Your task to perform on an android device: turn on the 12-hour format for clock Image 0: 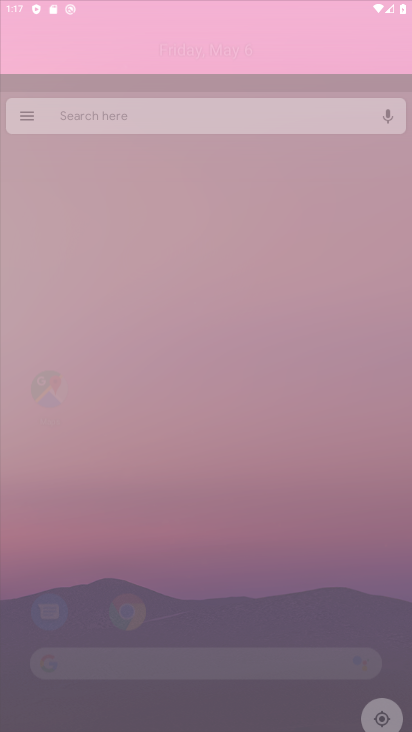
Step 0: click (129, 641)
Your task to perform on an android device: turn on the 12-hour format for clock Image 1: 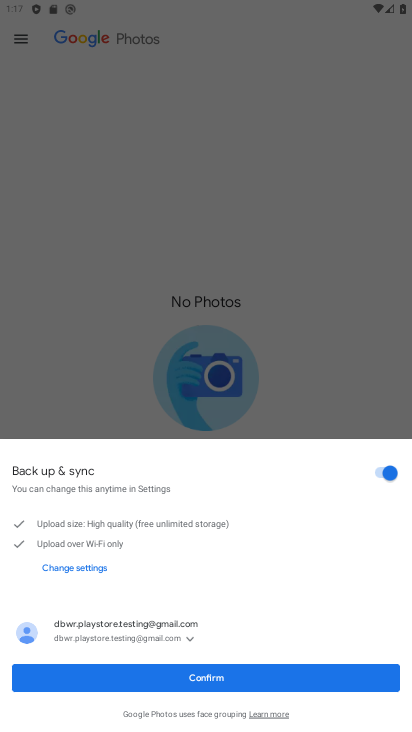
Step 1: click (202, 685)
Your task to perform on an android device: turn on the 12-hour format for clock Image 2: 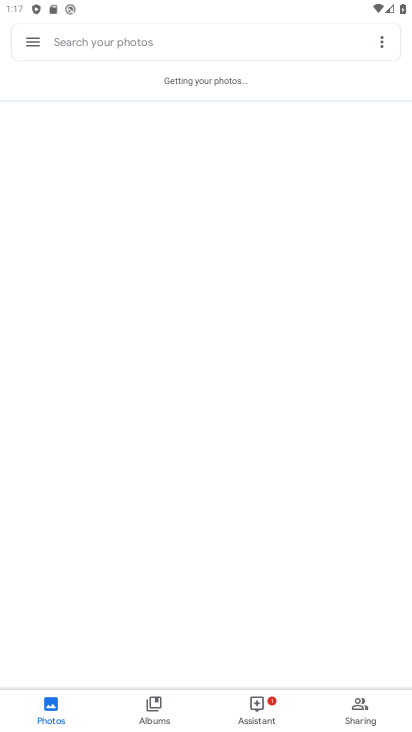
Step 2: press back button
Your task to perform on an android device: turn on the 12-hour format for clock Image 3: 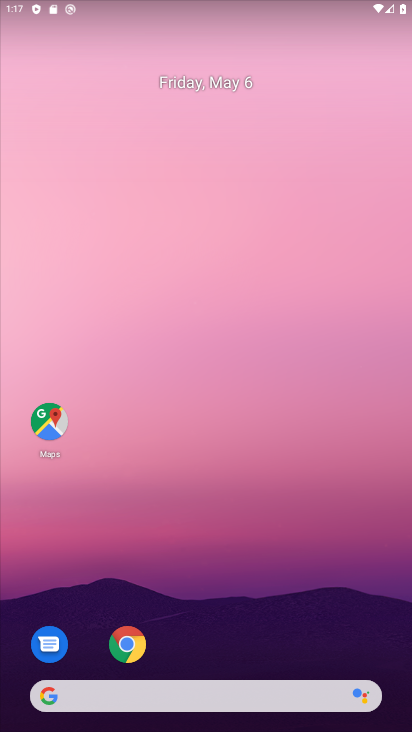
Step 3: drag from (216, 633) to (302, 107)
Your task to perform on an android device: turn on the 12-hour format for clock Image 4: 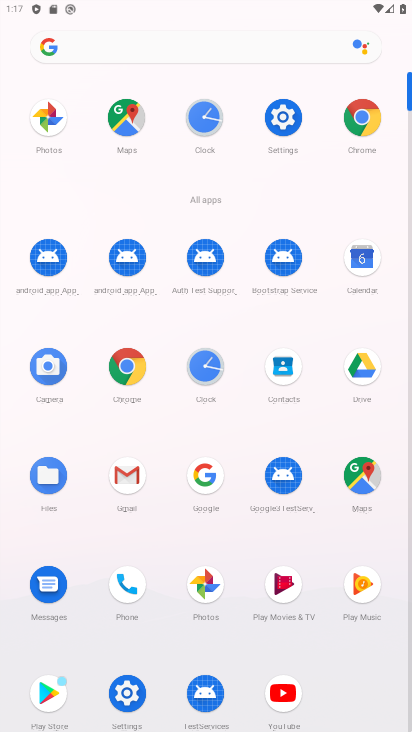
Step 4: click (204, 362)
Your task to perform on an android device: turn on the 12-hour format for clock Image 5: 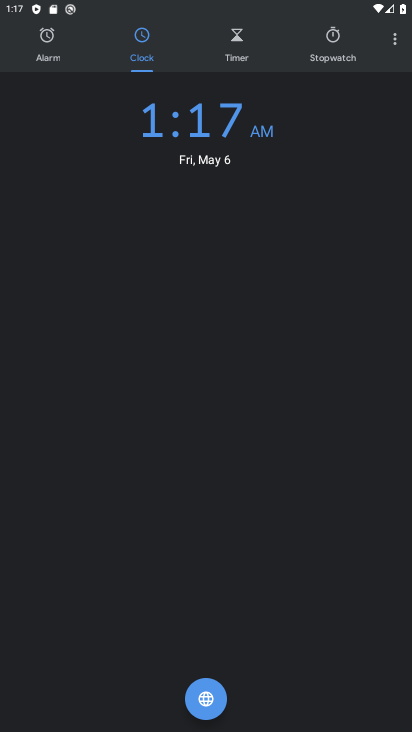
Step 5: click (393, 40)
Your task to perform on an android device: turn on the 12-hour format for clock Image 6: 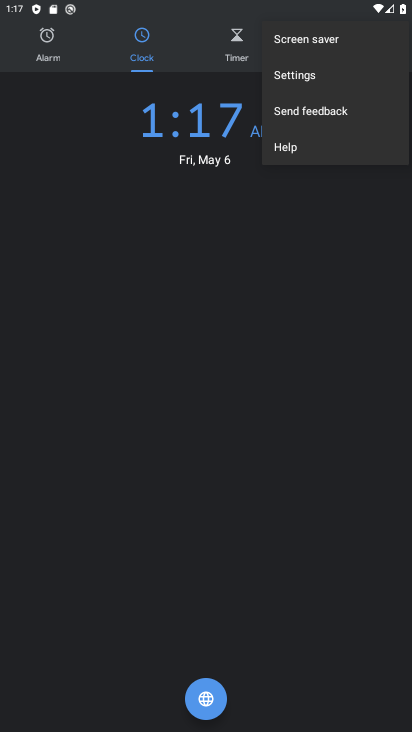
Step 6: click (315, 77)
Your task to perform on an android device: turn on the 12-hour format for clock Image 7: 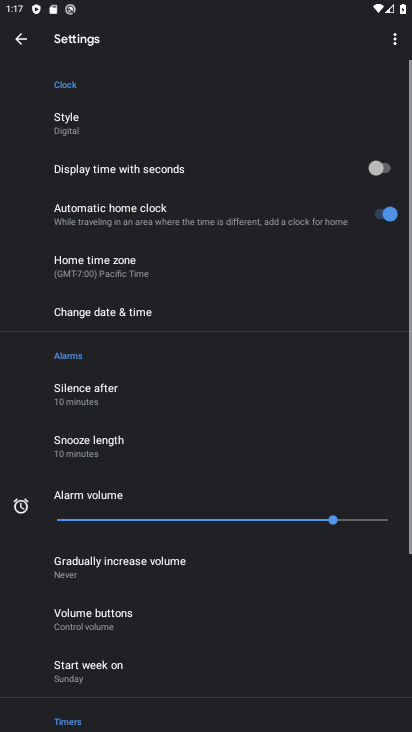
Step 7: drag from (135, 663) to (240, 73)
Your task to perform on an android device: turn on the 12-hour format for clock Image 8: 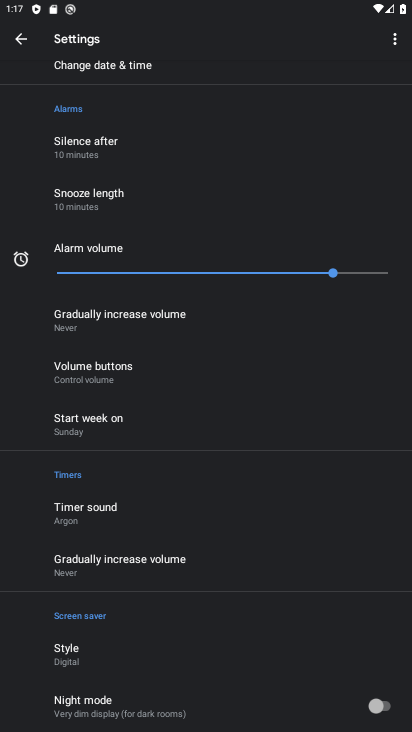
Step 8: click (102, 67)
Your task to perform on an android device: turn on the 12-hour format for clock Image 9: 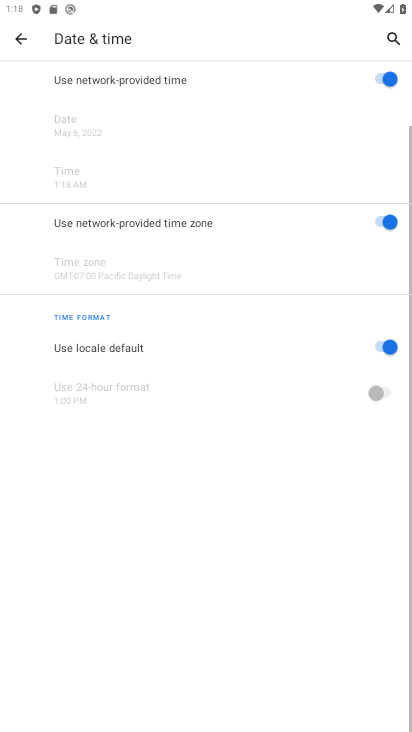
Step 9: task complete